Your task to perform on an android device: Open Google Maps Image 0: 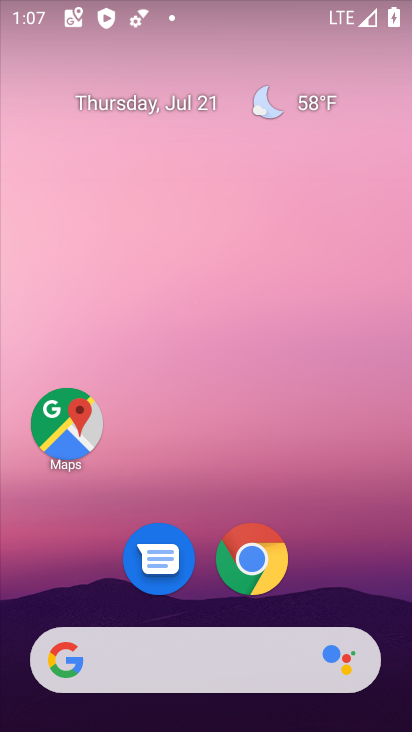
Step 0: drag from (365, 562) to (344, 134)
Your task to perform on an android device: Open Google Maps Image 1: 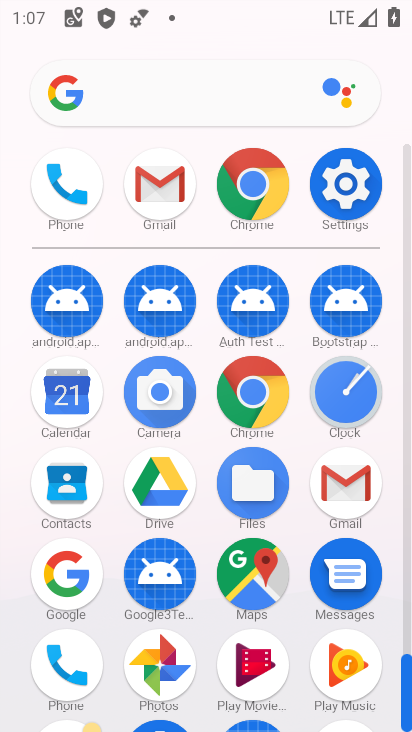
Step 1: click (273, 575)
Your task to perform on an android device: Open Google Maps Image 2: 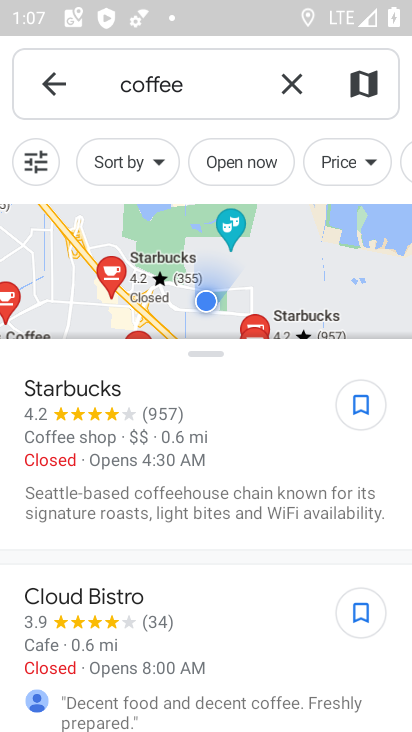
Step 2: task complete